Your task to perform on an android device: clear history in the chrome app Image 0: 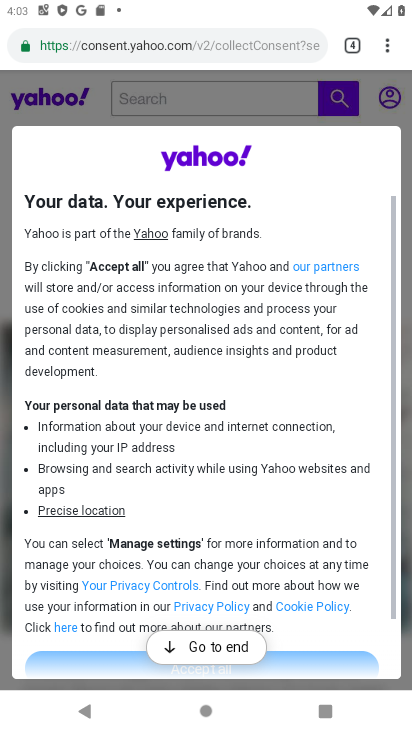
Step 0: click (387, 50)
Your task to perform on an android device: clear history in the chrome app Image 1: 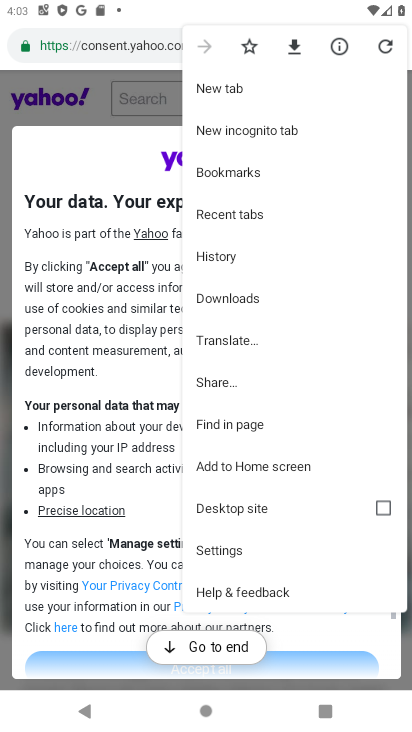
Step 1: click (213, 256)
Your task to perform on an android device: clear history in the chrome app Image 2: 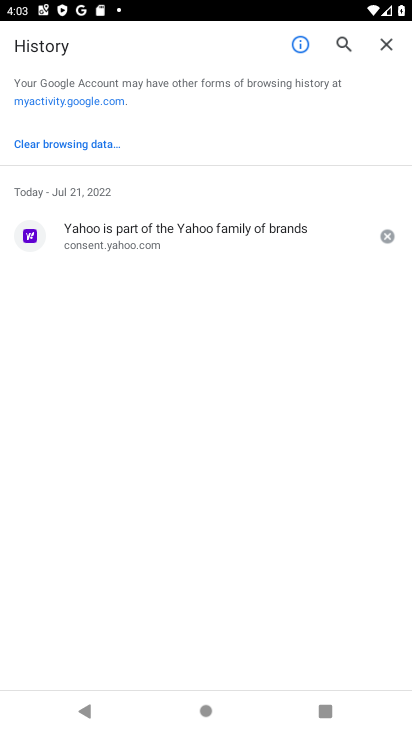
Step 2: click (62, 142)
Your task to perform on an android device: clear history in the chrome app Image 3: 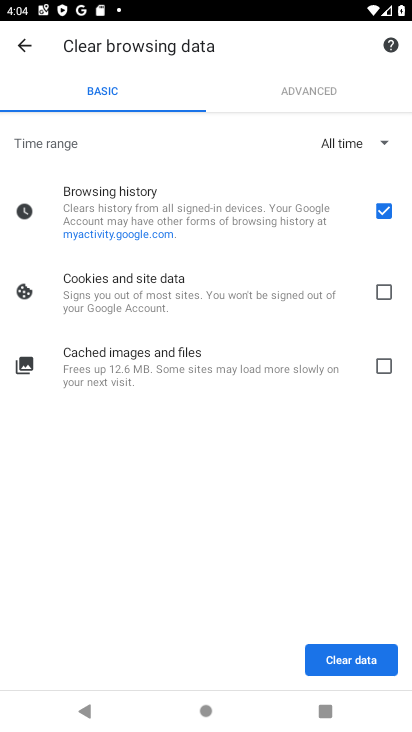
Step 3: click (363, 659)
Your task to perform on an android device: clear history in the chrome app Image 4: 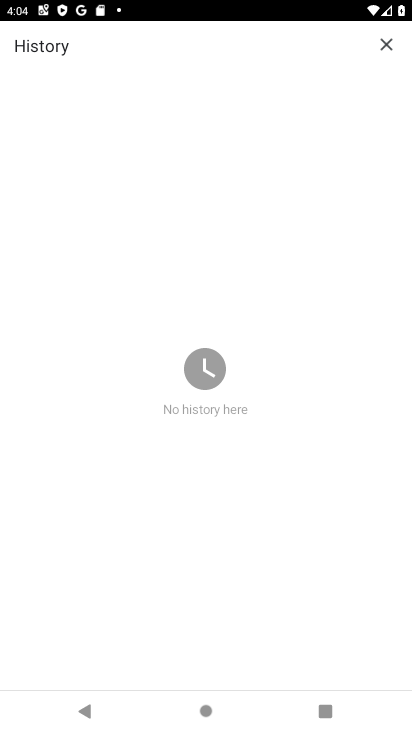
Step 4: task complete